Your task to perform on an android device: Open display settings Image 0: 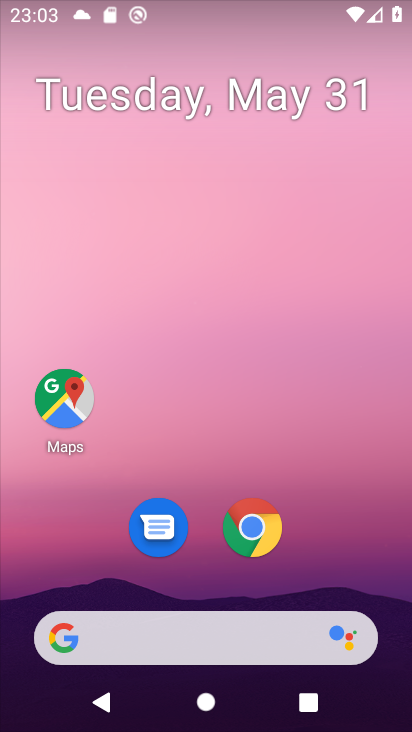
Step 0: drag from (341, 542) to (305, 33)
Your task to perform on an android device: Open display settings Image 1: 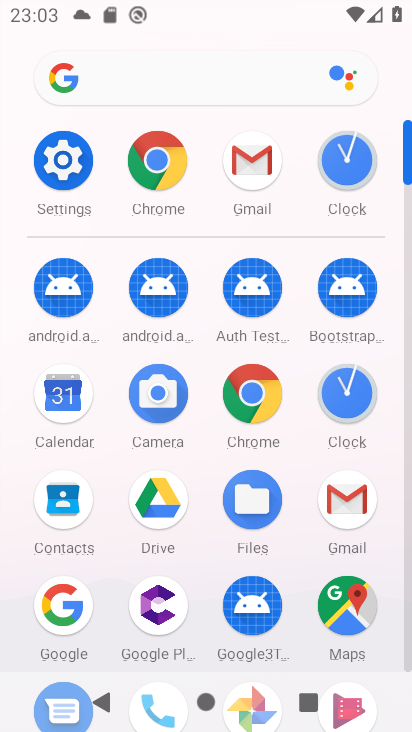
Step 1: click (69, 155)
Your task to perform on an android device: Open display settings Image 2: 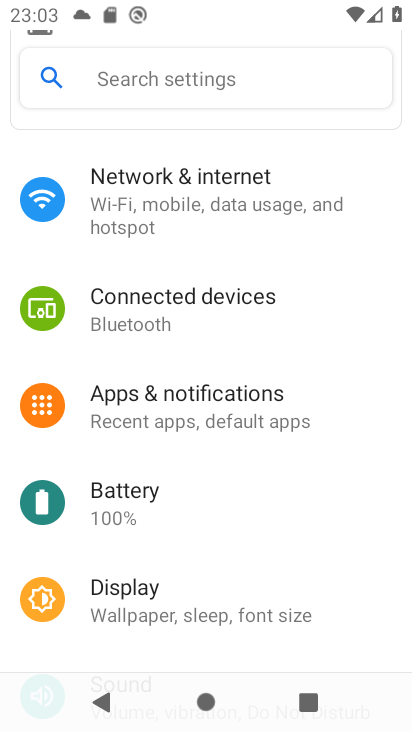
Step 2: click (203, 601)
Your task to perform on an android device: Open display settings Image 3: 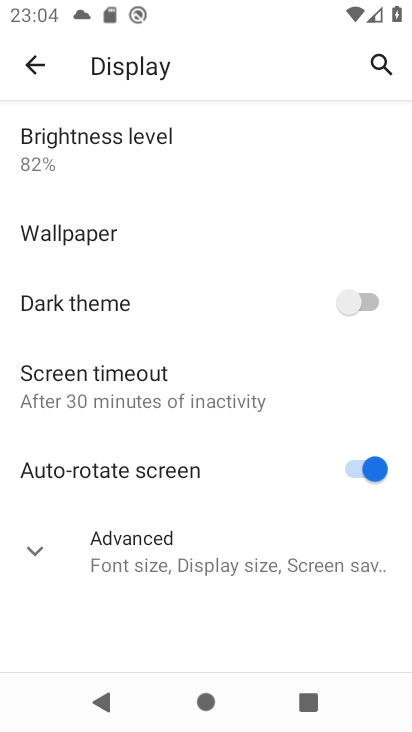
Step 3: task complete